Your task to perform on an android device: Open calendar and show me the first week of next month Image 0: 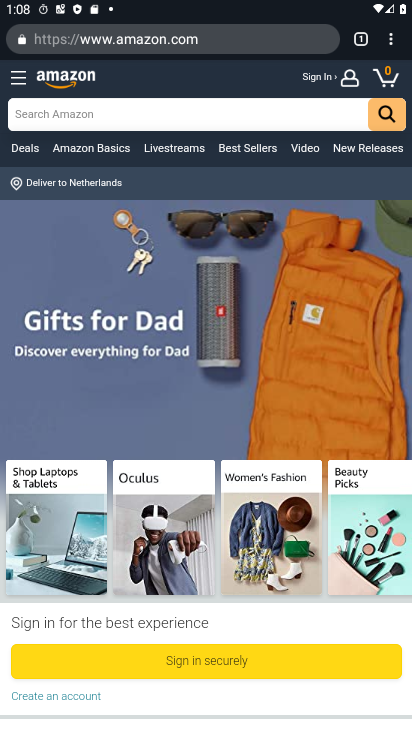
Step 0: press home button
Your task to perform on an android device: Open calendar and show me the first week of next month Image 1: 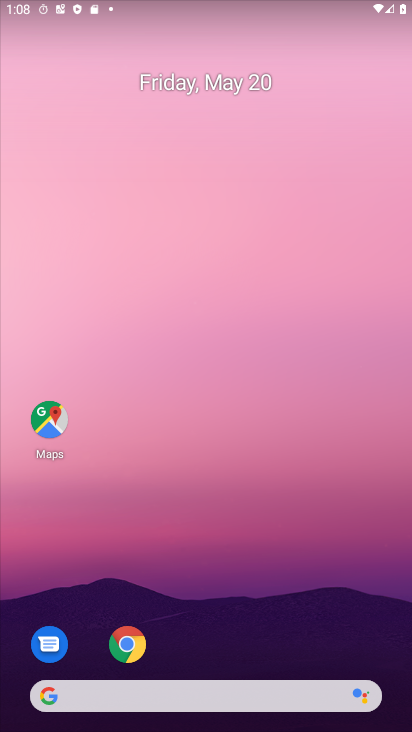
Step 1: drag from (231, 560) to (212, 45)
Your task to perform on an android device: Open calendar and show me the first week of next month Image 2: 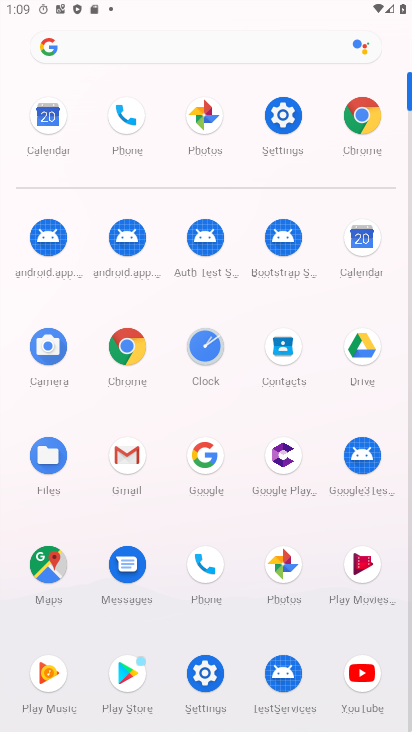
Step 2: click (367, 247)
Your task to perform on an android device: Open calendar and show me the first week of next month Image 3: 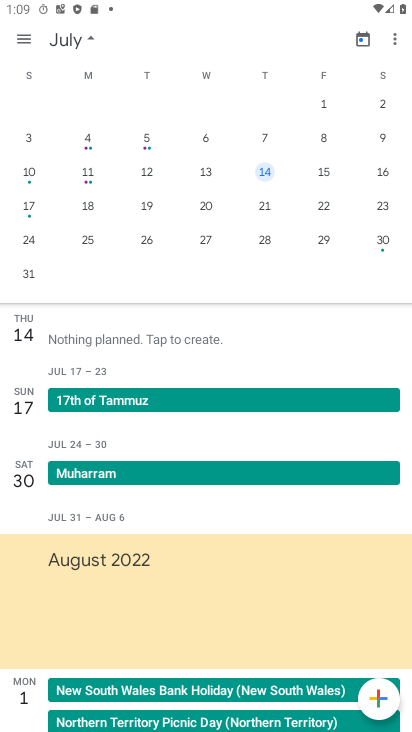
Step 3: drag from (377, 244) to (18, 178)
Your task to perform on an android device: Open calendar and show me the first week of next month Image 4: 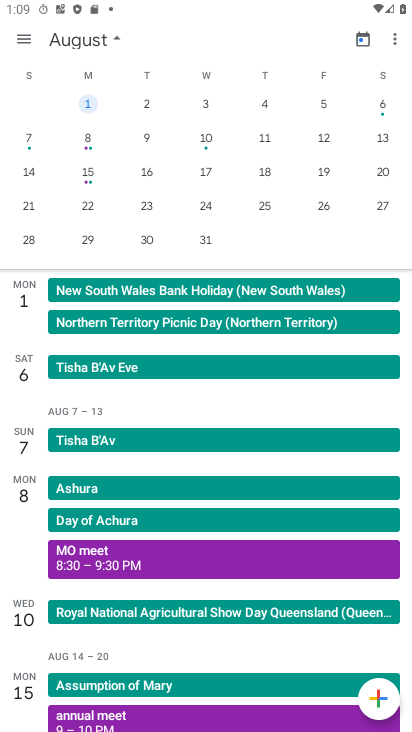
Step 4: click (380, 106)
Your task to perform on an android device: Open calendar and show me the first week of next month Image 5: 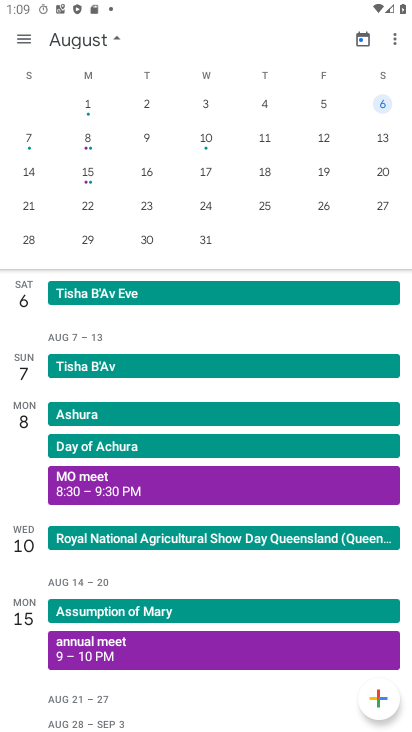
Step 5: task complete